Your task to perform on an android device: change notification settings in the gmail app Image 0: 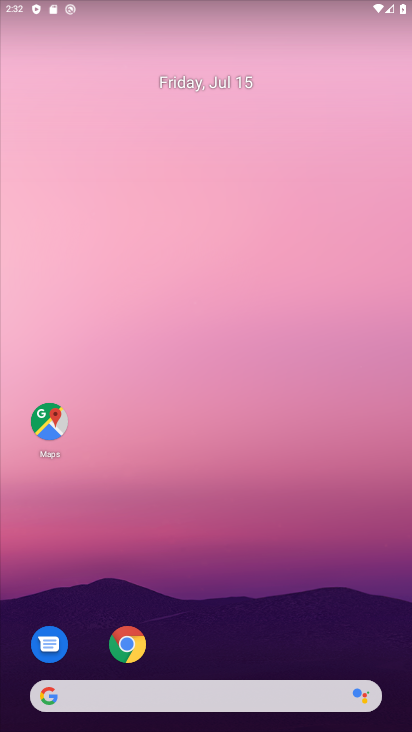
Step 0: drag from (192, 649) to (289, 7)
Your task to perform on an android device: change notification settings in the gmail app Image 1: 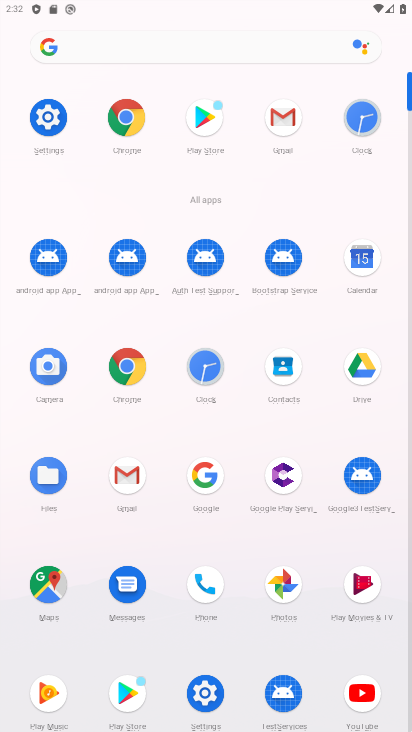
Step 1: click (291, 119)
Your task to perform on an android device: change notification settings in the gmail app Image 2: 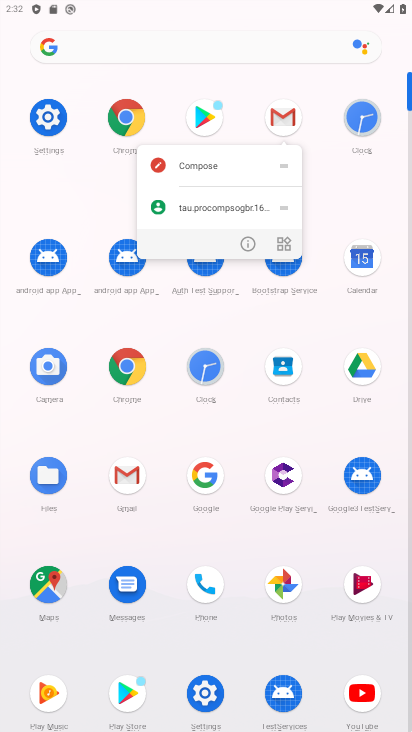
Step 2: click (245, 241)
Your task to perform on an android device: change notification settings in the gmail app Image 3: 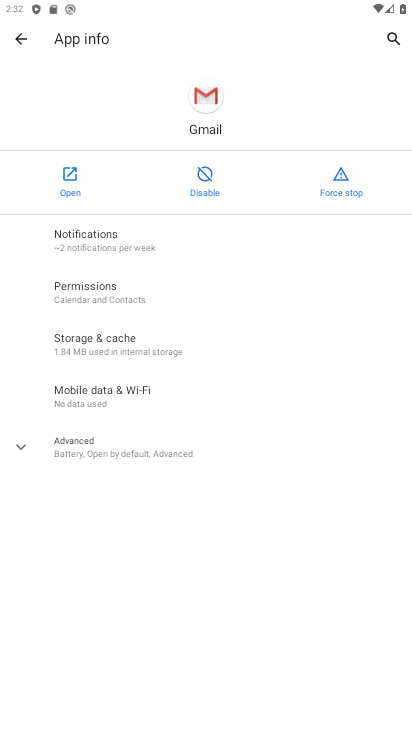
Step 3: click (133, 241)
Your task to perform on an android device: change notification settings in the gmail app Image 4: 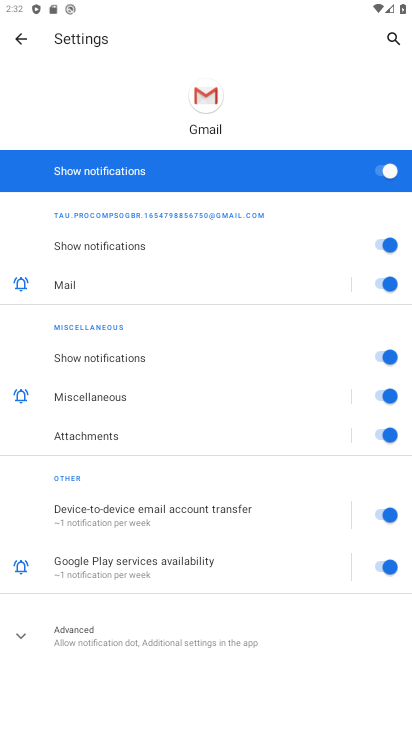
Step 4: click (395, 245)
Your task to perform on an android device: change notification settings in the gmail app Image 5: 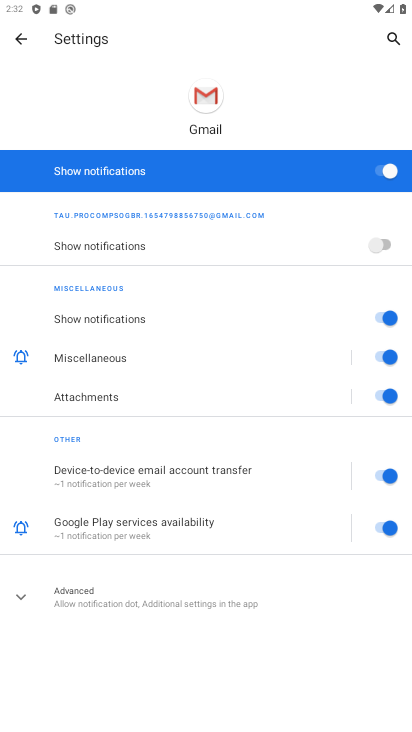
Step 5: task complete